Your task to perform on an android device: turn on the 24-hour format for clock Image 0: 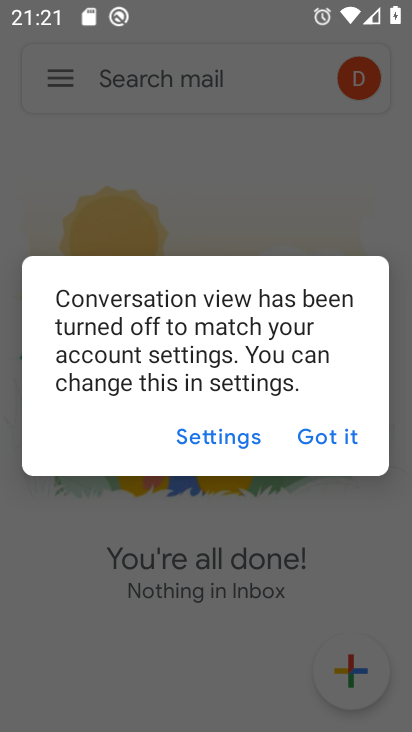
Step 0: press home button
Your task to perform on an android device: turn on the 24-hour format for clock Image 1: 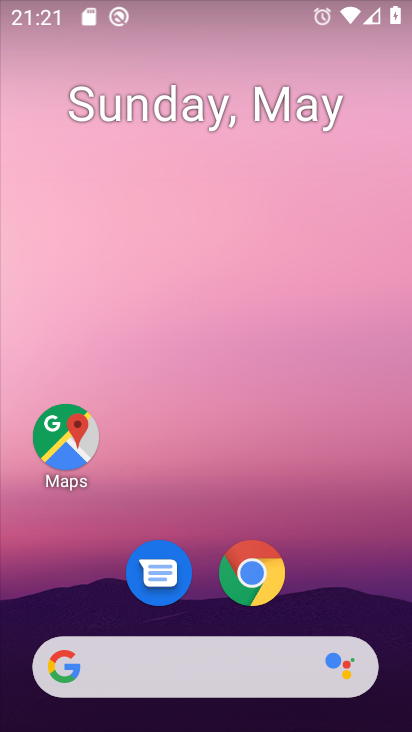
Step 1: drag from (211, 508) to (174, 0)
Your task to perform on an android device: turn on the 24-hour format for clock Image 2: 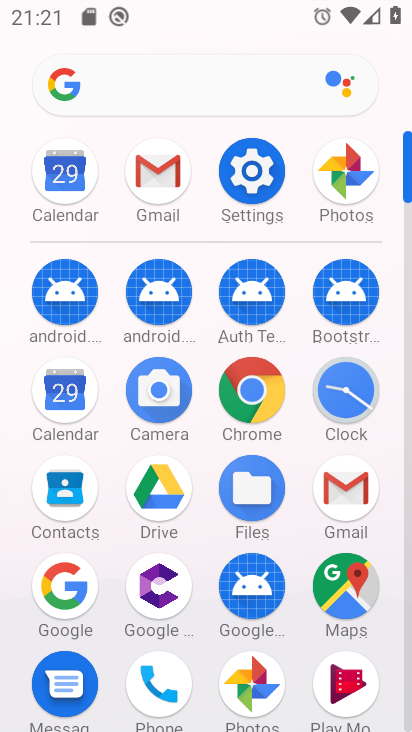
Step 2: click (337, 384)
Your task to perform on an android device: turn on the 24-hour format for clock Image 3: 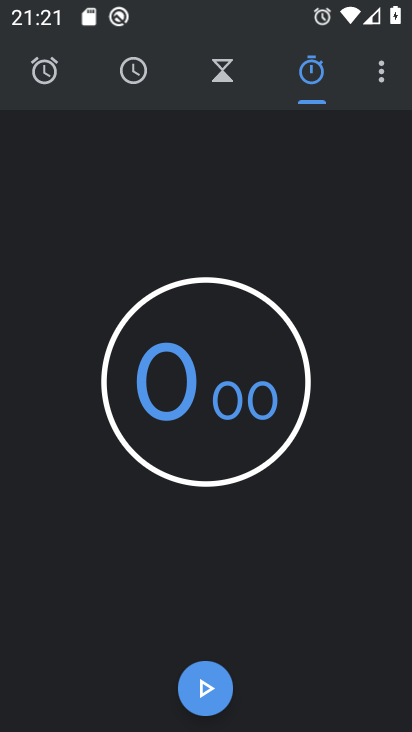
Step 3: click (384, 73)
Your task to perform on an android device: turn on the 24-hour format for clock Image 4: 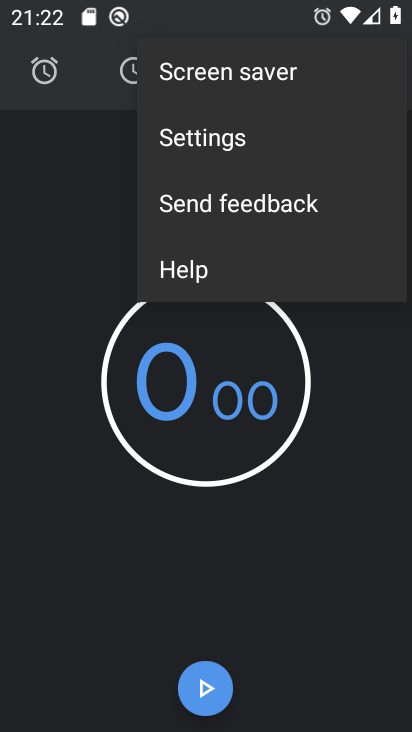
Step 4: click (297, 144)
Your task to perform on an android device: turn on the 24-hour format for clock Image 5: 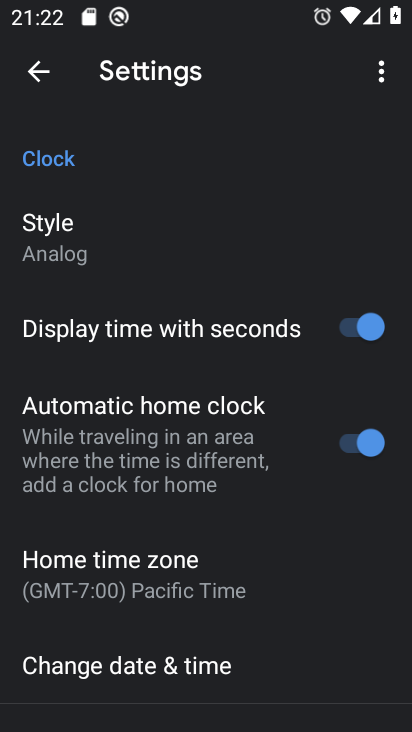
Step 5: click (224, 664)
Your task to perform on an android device: turn on the 24-hour format for clock Image 6: 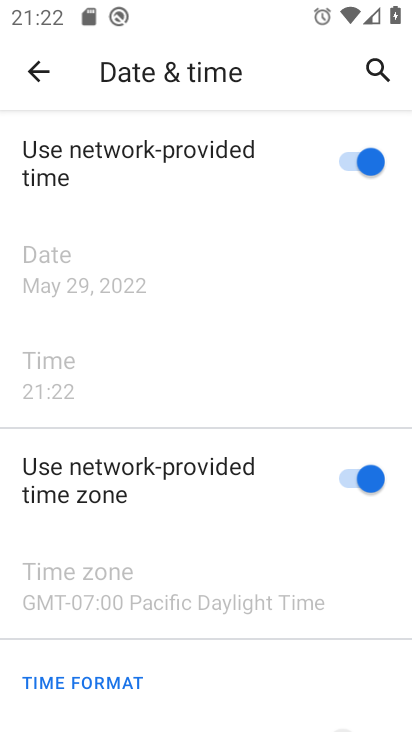
Step 6: task complete